Your task to perform on an android device: Show me the alarms in the clock app Image 0: 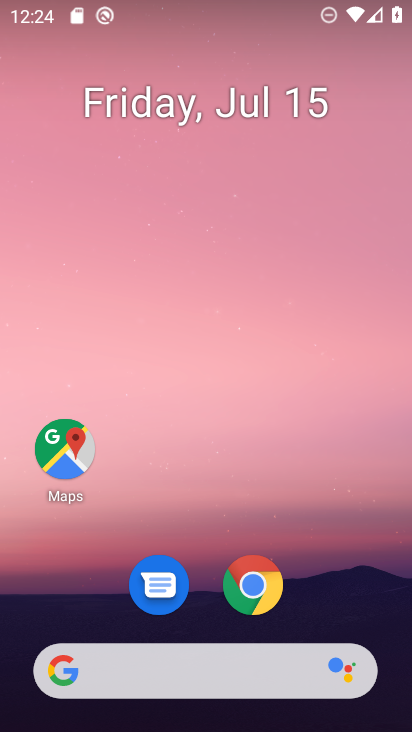
Step 0: drag from (288, 508) to (357, 32)
Your task to perform on an android device: Show me the alarms in the clock app Image 1: 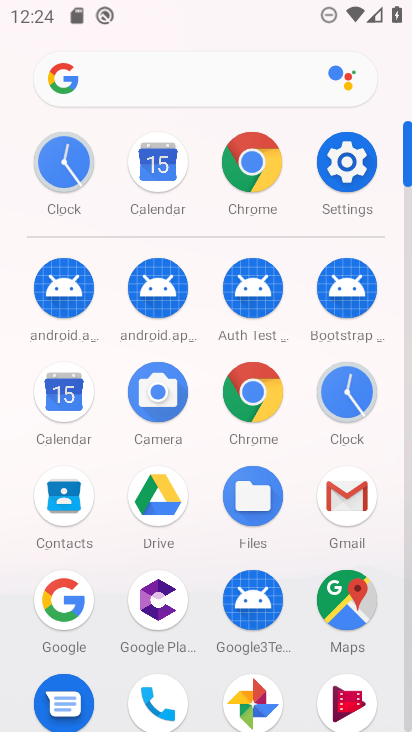
Step 1: click (349, 400)
Your task to perform on an android device: Show me the alarms in the clock app Image 2: 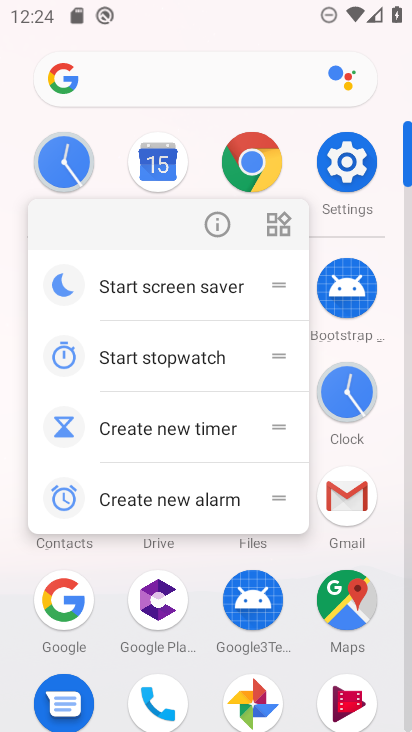
Step 2: click (68, 167)
Your task to perform on an android device: Show me the alarms in the clock app Image 3: 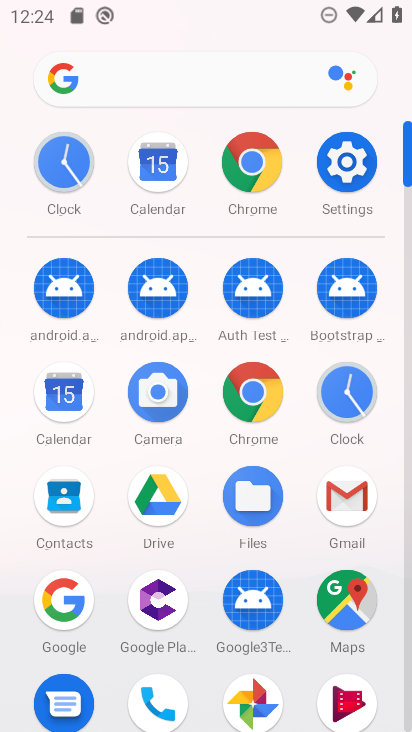
Step 3: click (68, 165)
Your task to perform on an android device: Show me the alarms in the clock app Image 4: 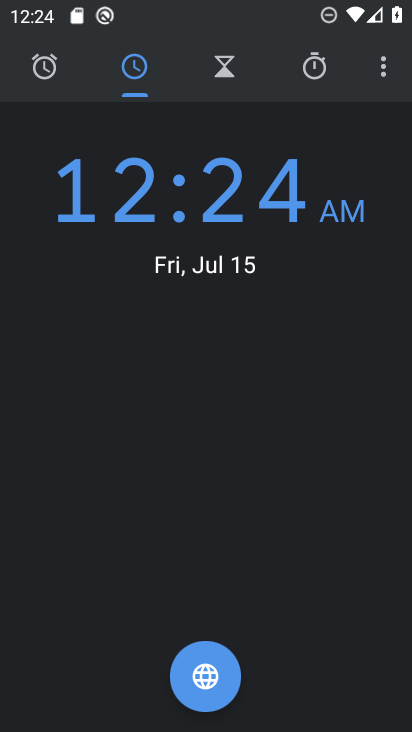
Step 4: click (42, 76)
Your task to perform on an android device: Show me the alarms in the clock app Image 5: 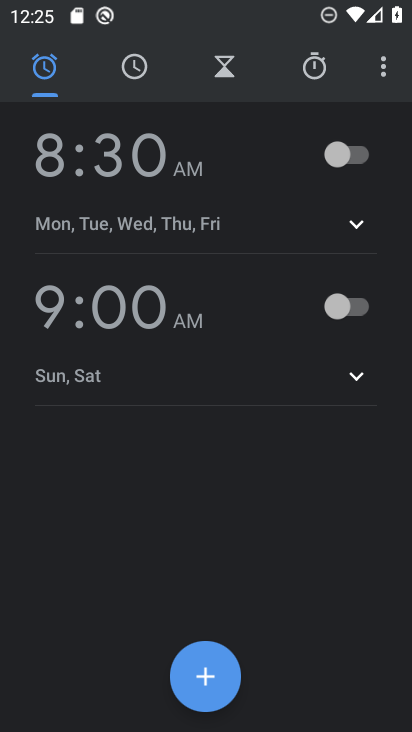
Step 5: task complete